Your task to perform on an android device: turn off javascript in the chrome app Image 0: 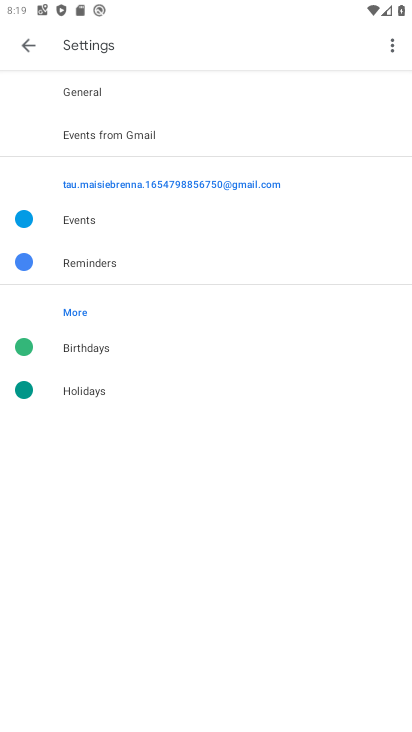
Step 0: press home button
Your task to perform on an android device: turn off javascript in the chrome app Image 1: 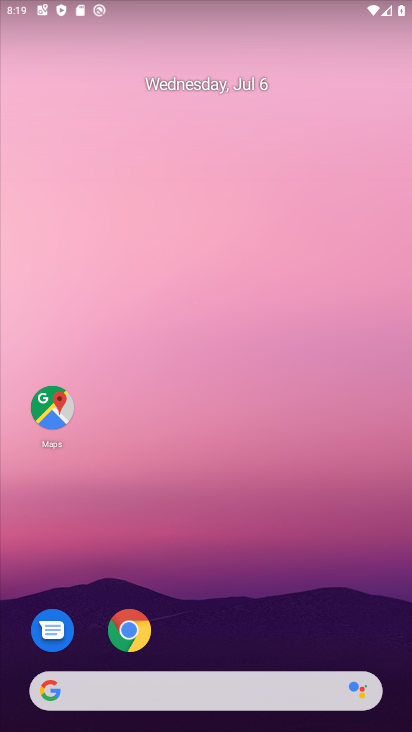
Step 1: click (126, 629)
Your task to perform on an android device: turn off javascript in the chrome app Image 2: 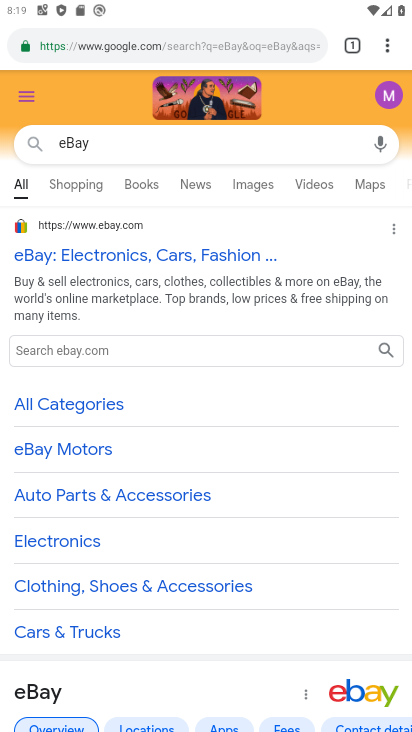
Step 2: click (388, 37)
Your task to perform on an android device: turn off javascript in the chrome app Image 3: 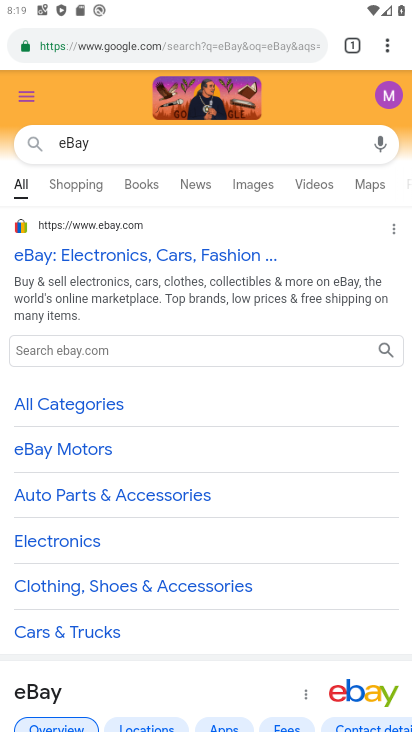
Step 3: click (388, 38)
Your task to perform on an android device: turn off javascript in the chrome app Image 4: 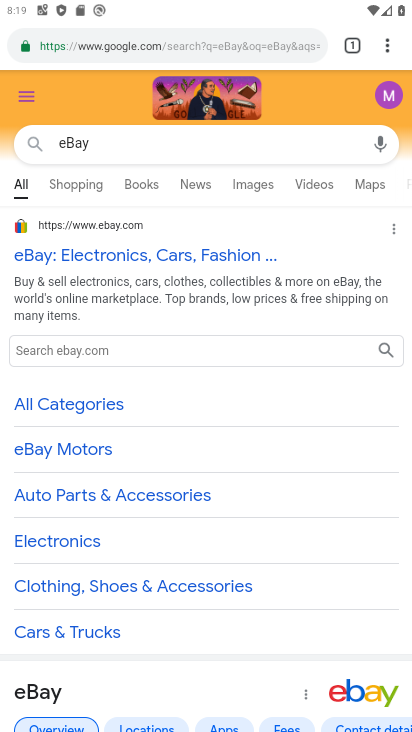
Step 4: click (388, 39)
Your task to perform on an android device: turn off javascript in the chrome app Image 5: 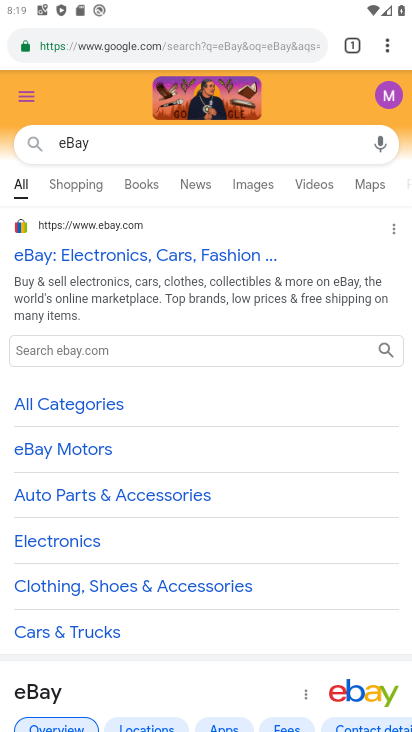
Step 5: click (386, 43)
Your task to perform on an android device: turn off javascript in the chrome app Image 6: 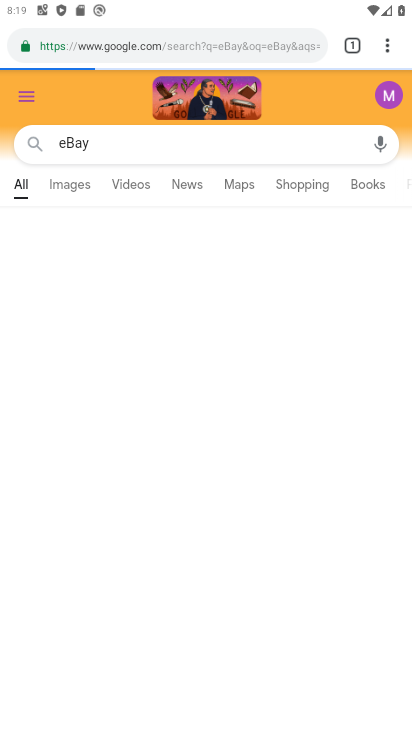
Step 6: click (386, 43)
Your task to perform on an android device: turn off javascript in the chrome app Image 7: 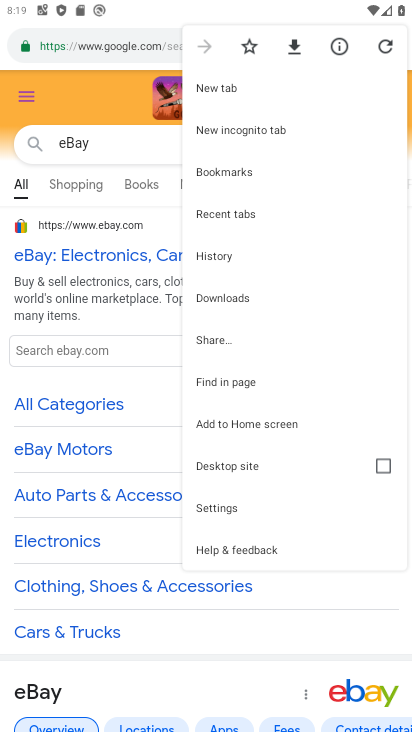
Step 7: click (235, 505)
Your task to perform on an android device: turn off javascript in the chrome app Image 8: 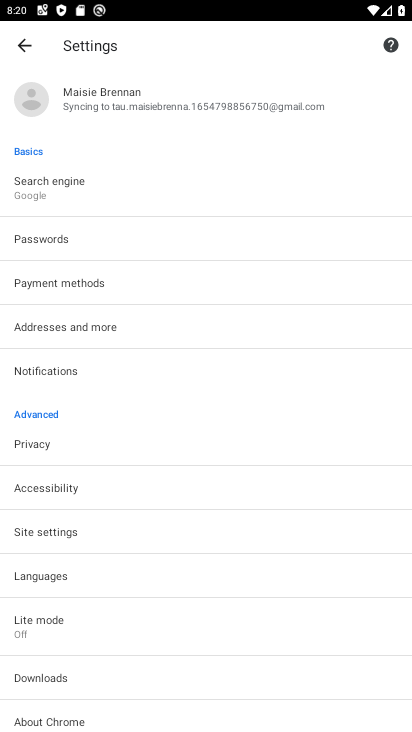
Step 8: click (58, 533)
Your task to perform on an android device: turn off javascript in the chrome app Image 9: 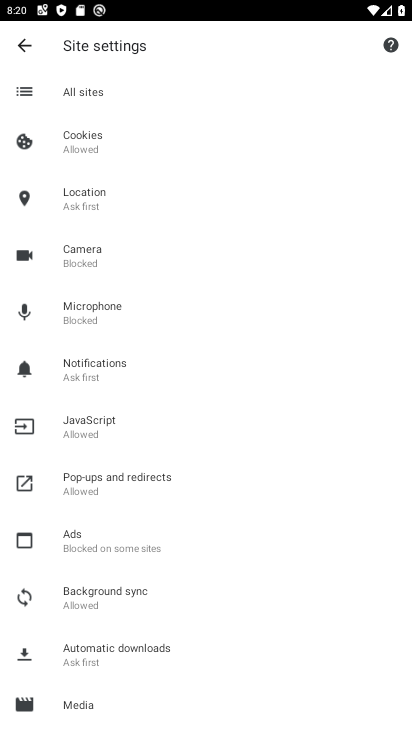
Step 9: click (82, 416)
Your task to perform on an android device: turn off javascript in the chrome app Image 10: 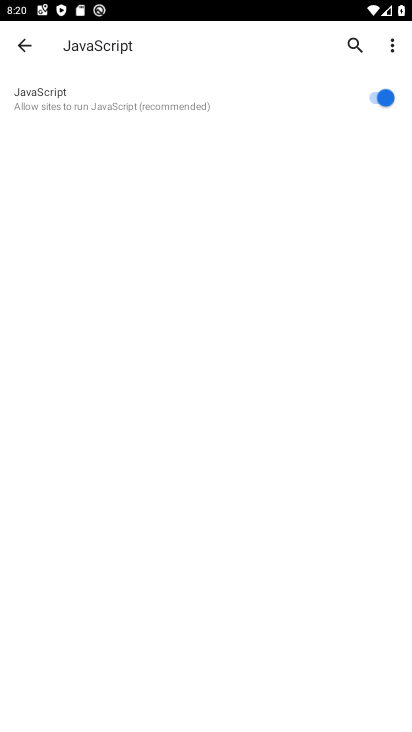
Step 10: click (370, 99)
Your task to perform on an android device: turn off javascript in the chrome app Image 11: 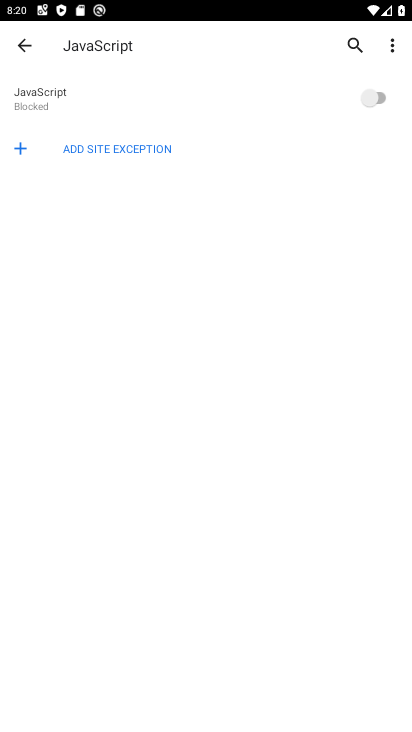
Step 11: task complete